Your task to perform on an android device: Do I have any events today? Image 0: 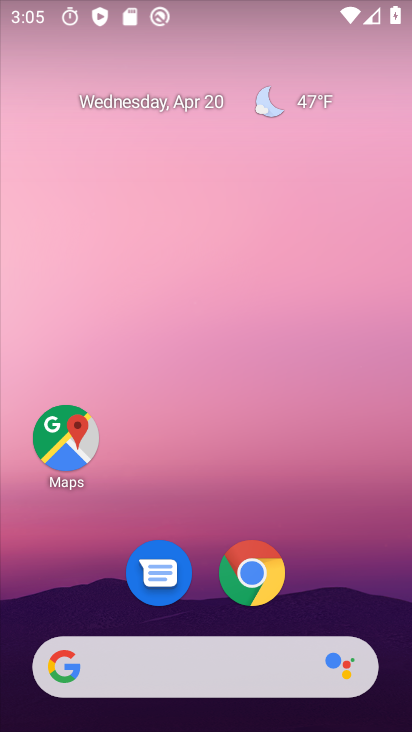
Step 0: drag from (214, 719) to (216, 103)
Your task to perform on an android device: Do I have any events today? Image 1: 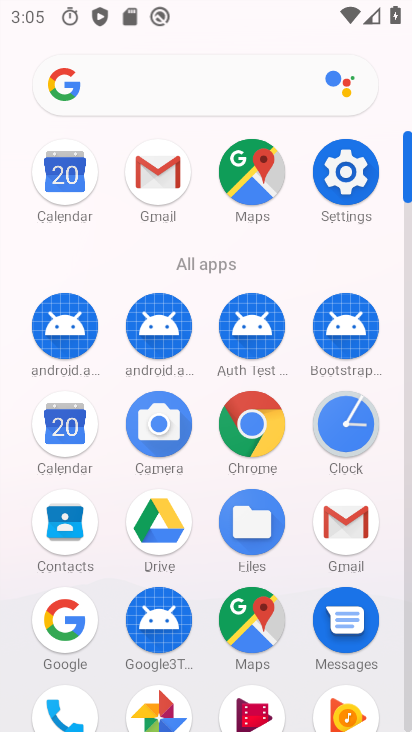
Step 1: click (65, 424)
Your task to perform on an android device: Do I have any events today? Image 2: 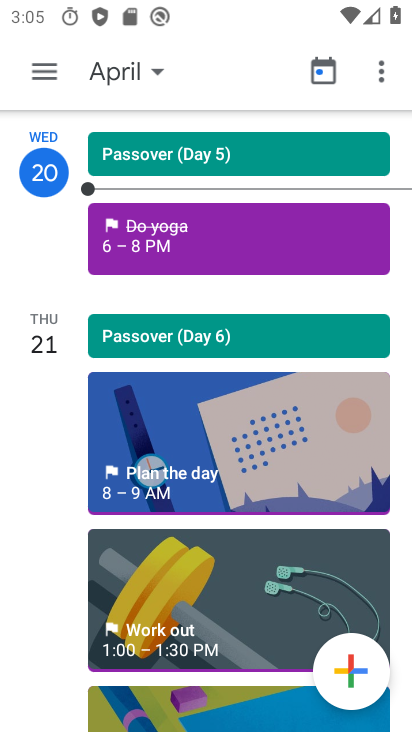
Step 2: click (42, 63)
Your task to perform on an android device: Do I have any events today? Image 3: 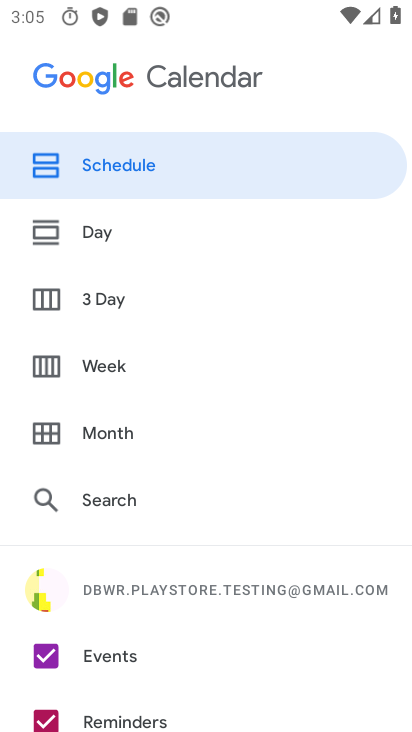
Step 3: drag from (150, 627) to (136, 327)
Your task to perform on an android device: Do I have any events today? Image 4: 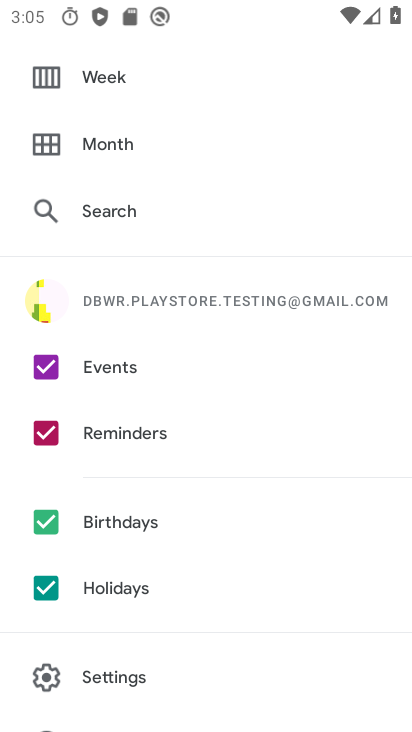
Step 4: click (53, 586)
Your task to perform on an android device: Do I have any events today? Image 5: 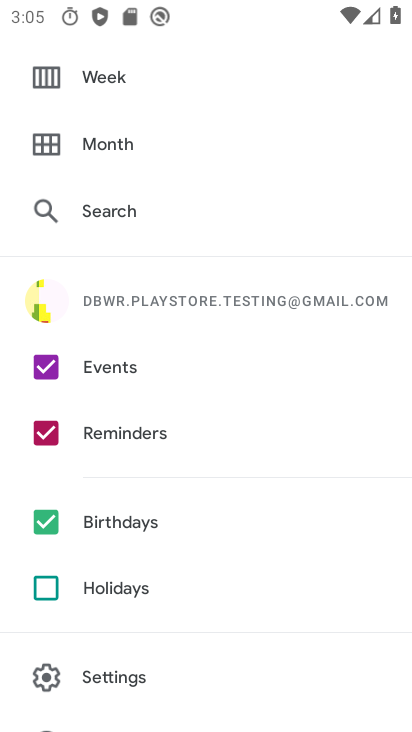
Step 5: click (46, 517)
Your task to perform on an android device: Do I have any events today? Image 6: 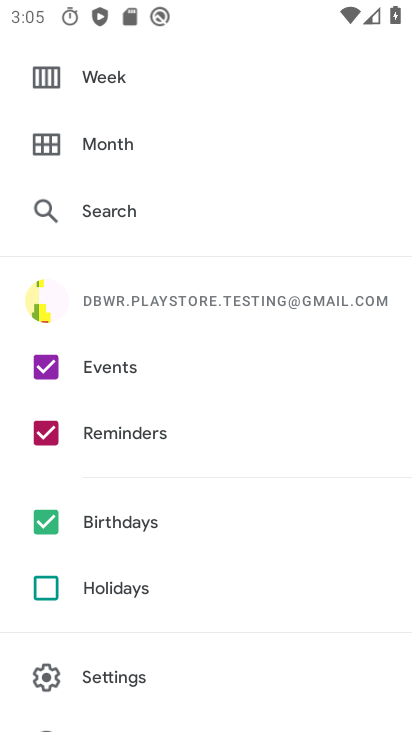
Step 6: click (47, 430)
Your task to perform on an android device: Do I have any events today? Image 7: 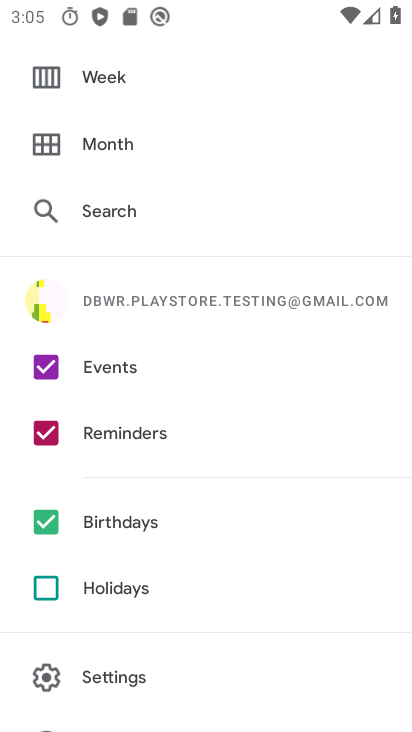
Step 7: click (42, 521)
Your task to perform on an android device: Do I have any events today? Image 8: 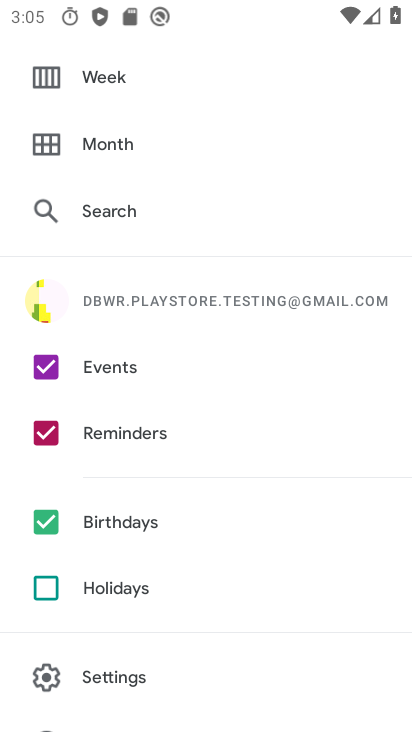
Step 8: click (48, 518)
Your task to perform on an android device: Do I have any events today? Image 9: 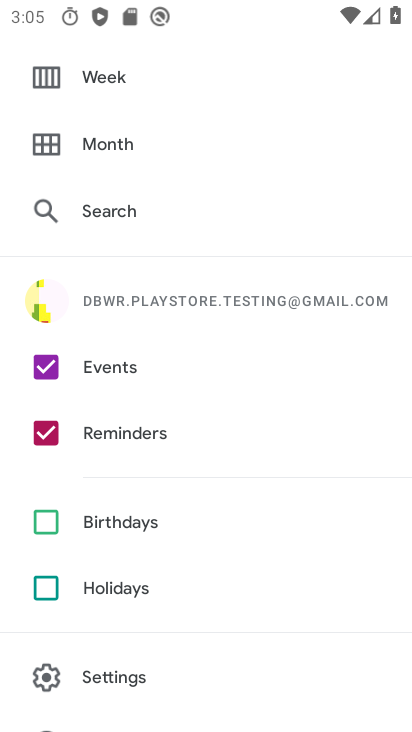
Step 9: click (50, 433)
Your task to perform on an android device: Do I have any events today? Image 10: 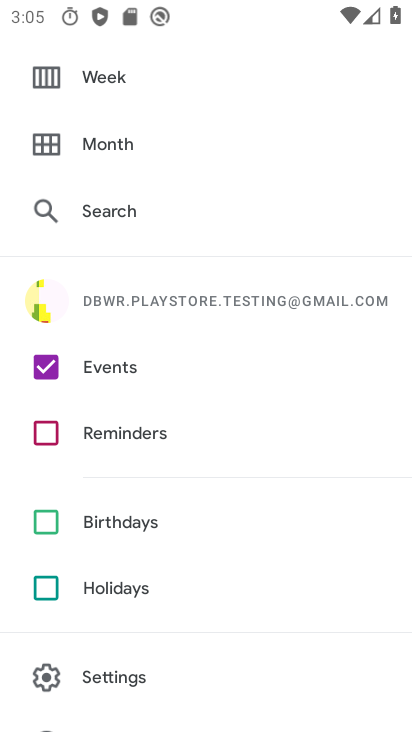
Step 10: drag from (261, 194) to (259, 590)
Your task to perform on an android device: Do I have any events today? Image 11: 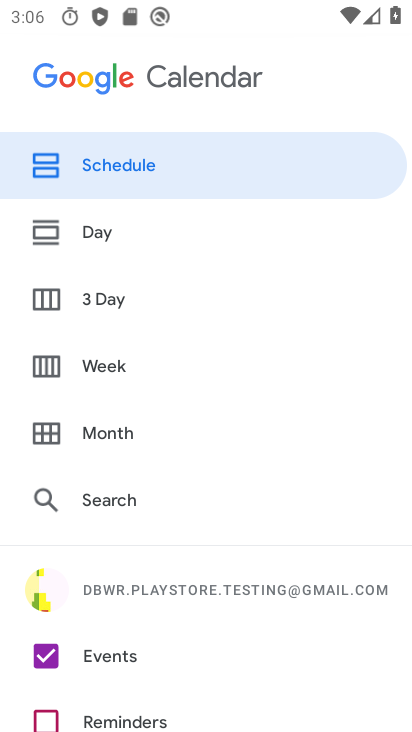
Step 11: click (151, 167)
Your task to perform on an android device: Do I have any events today? Image 12: 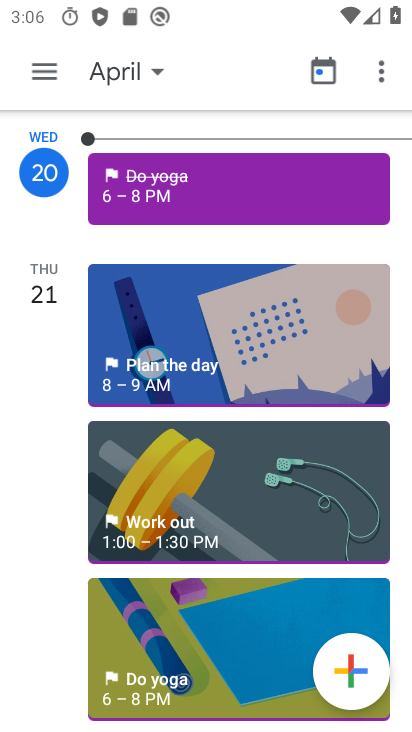
Step 12: task complete